Your task to perform on an android device: Open Android settings Image 0: 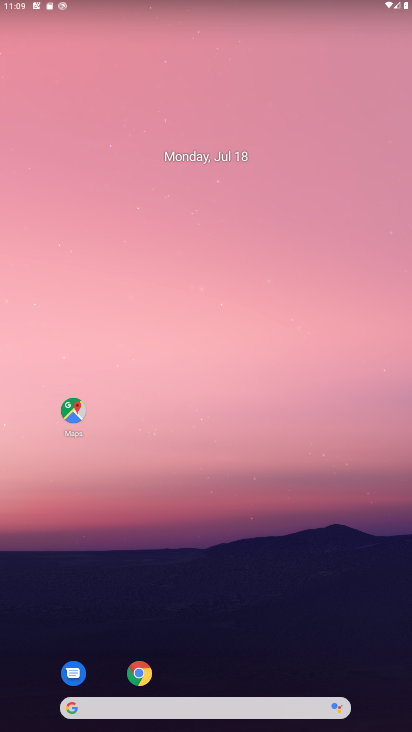
Step 0: drag from (224, 653) to (231, 169)
Your task to perform on an android device: Open Android settings Image 1: 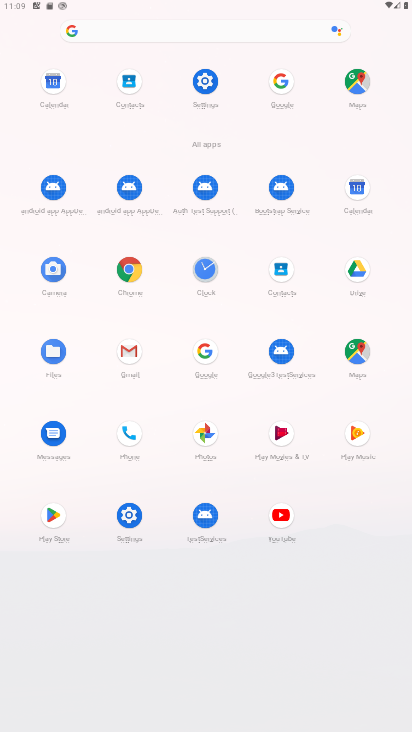
Step 1: click (211, 82)
Your task to perform on an android device: Open Android settings Image 2: 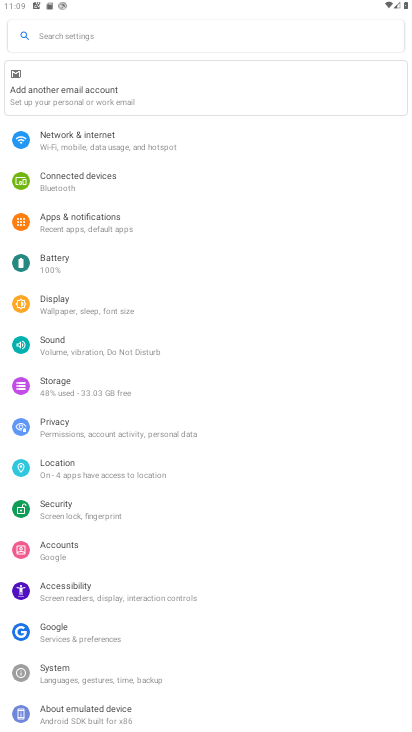
Step 2: task complete